Your task to perform on an android device: turn on notifications settings in the gmail app Image 0: 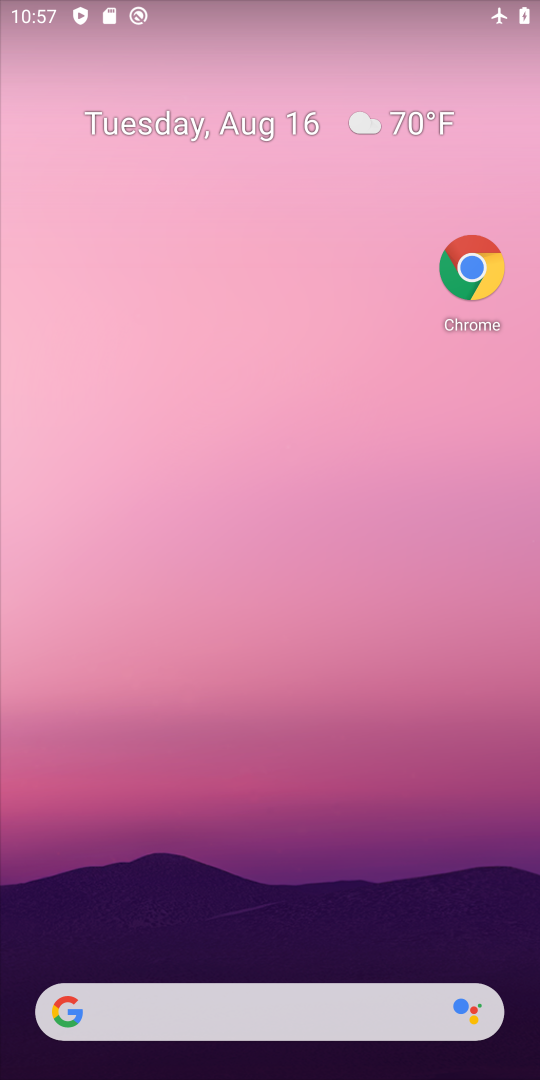
Step 0: drag from (291, 955) to (82, 195)
Your task to perform on an android device: turn on notifications settings in the gmail app Image 1: 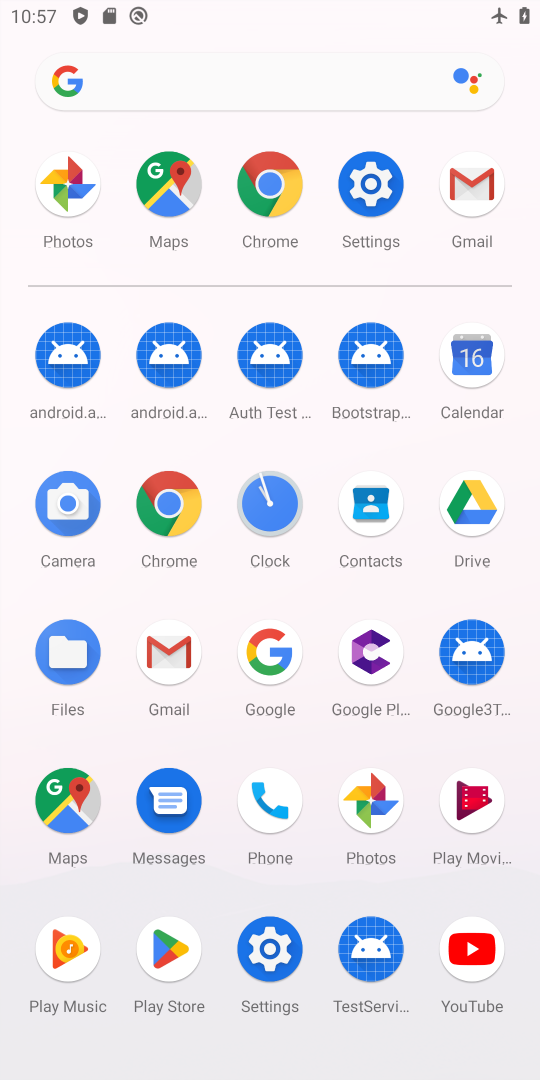
Step 1: click (175, 649)
Your task to perform on an android device: turn on notifications settings in the gmail app Image 2: 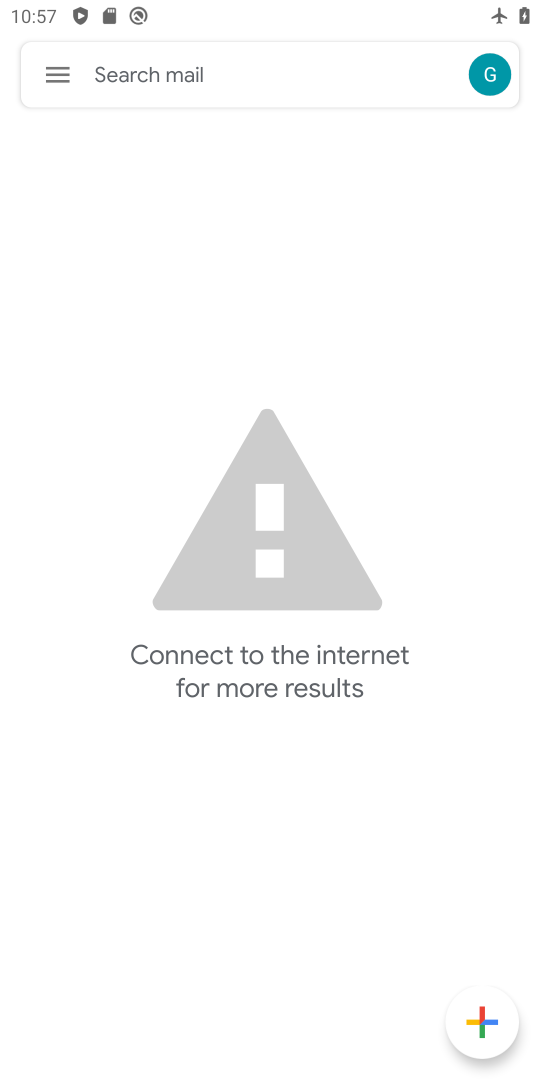
Step 2: click (70, 76)
Your task to perform on an android device: turn on notifications settings in the gmail app Image 3: 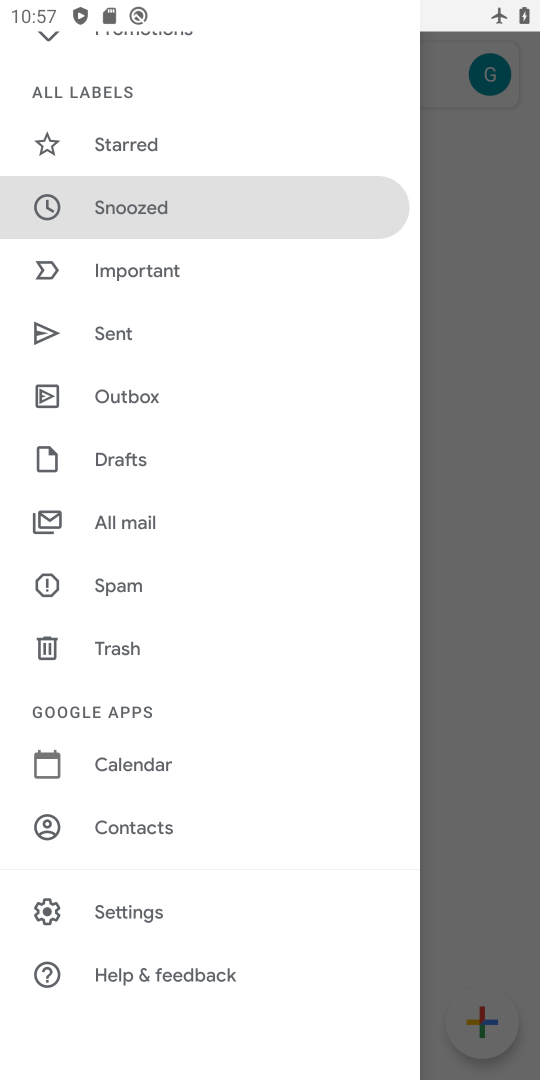
Step 3: click (84, 905)
Your task to perform on an android device: turn on notifications settings in the gmail app Image 4: 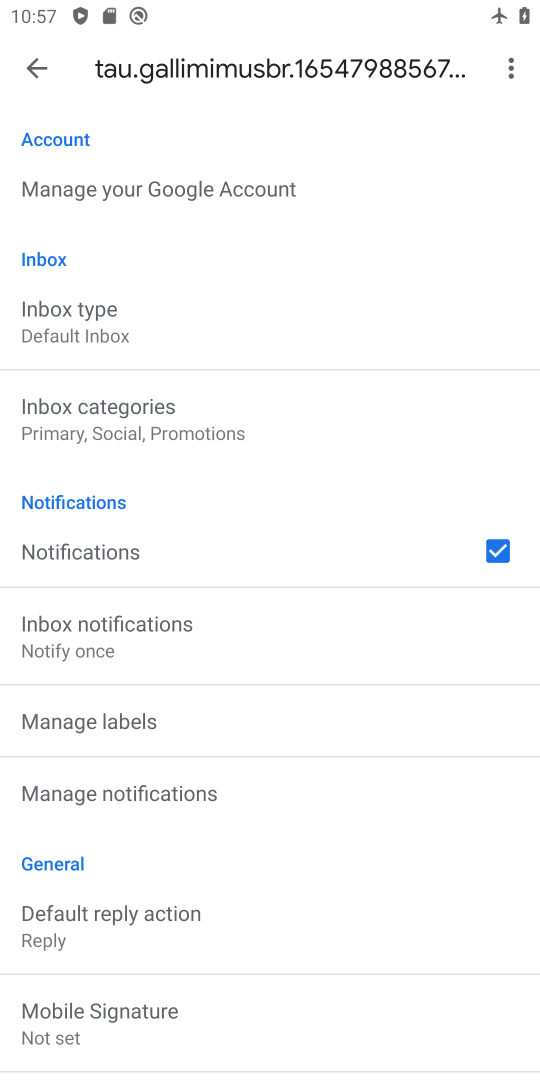
Step 4: click (26, 81)
Your task to perform on an android device: turn on notifications settings in the gmail app Image 5: 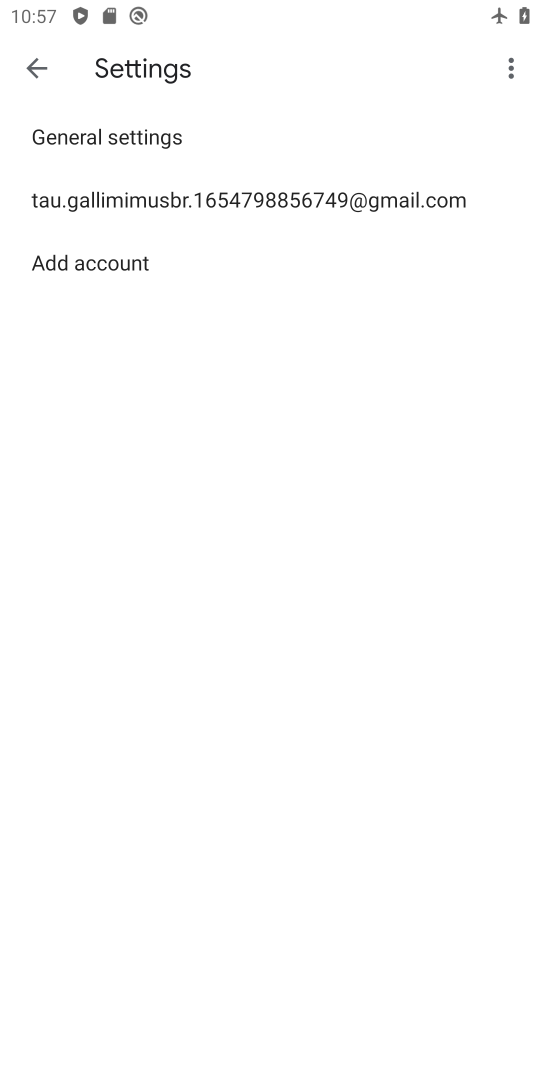
Step 5: click (44, 129)
Your task to perform on an android device: turn on notifications settings in the gmail app Image 6: 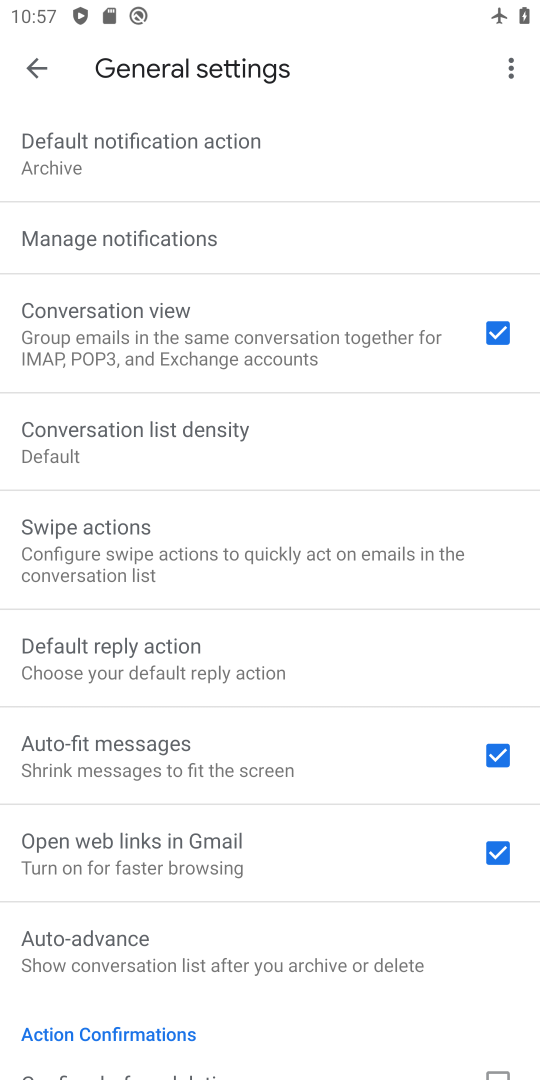
Step 6: click (79, 226)
Your task to perform on an android device: turn on notifications settings in the gmail app Image 7: 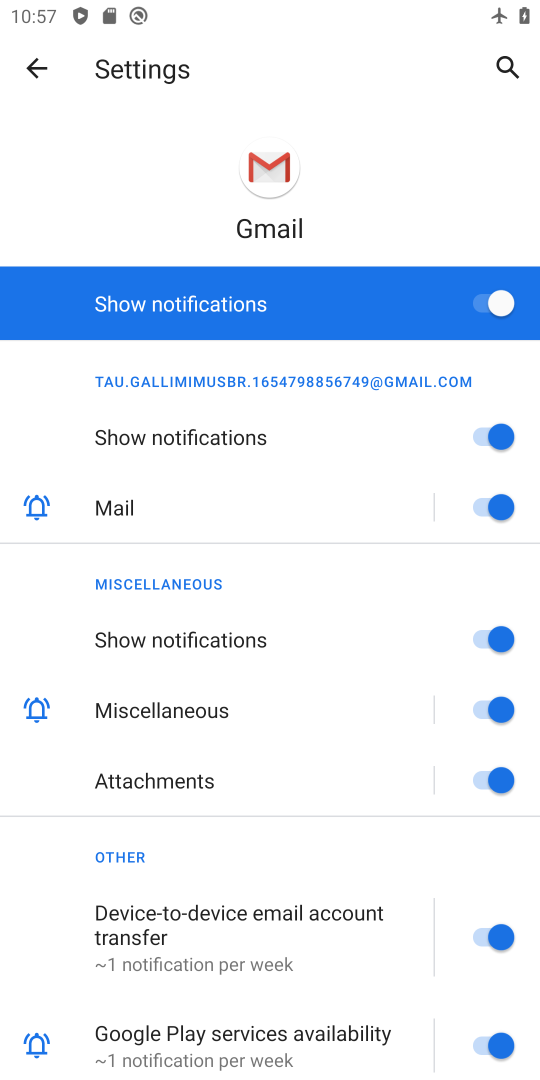
Step 7: task complete